Your task to perform on an android device: Open settings Image 0: 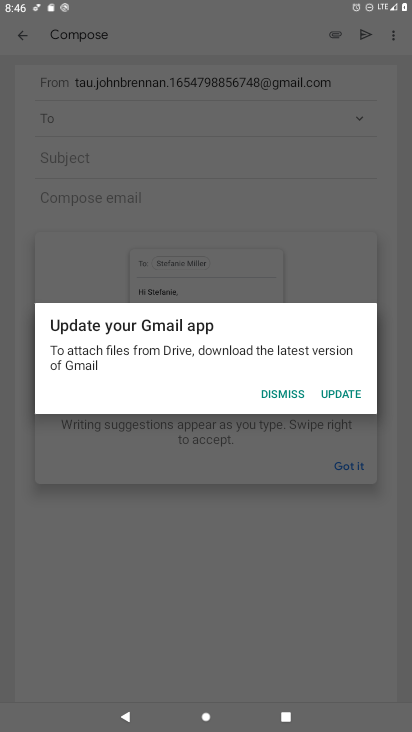
Step 0: press home button
Your task to perform on an android device: Open settings Image 1: 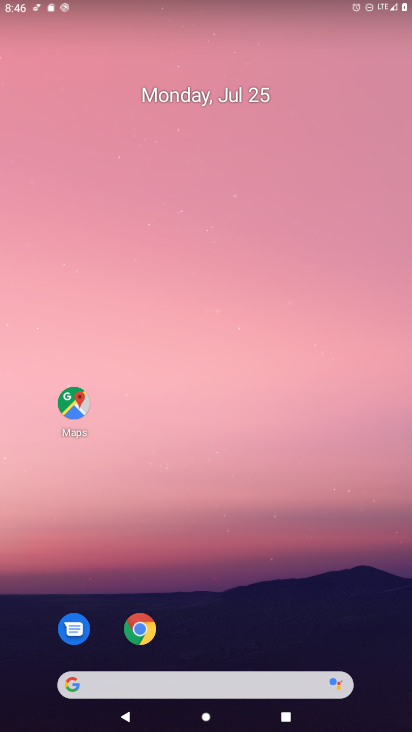
Step 1: drag from (199, 682) to (214, 116)
Your task to perform on an android device: Open settings Image 2: 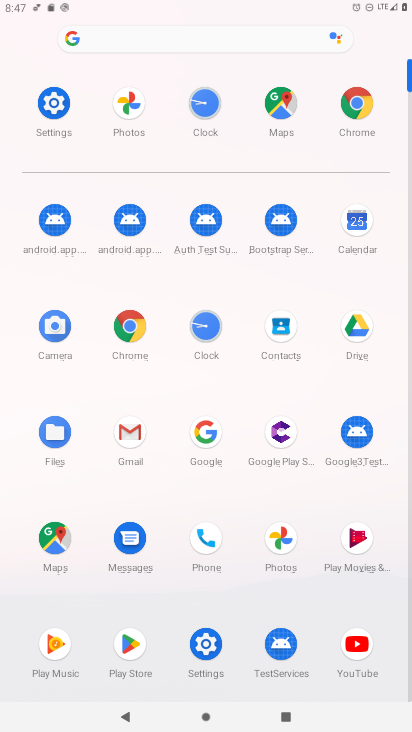
Step 2: click (205, 644)
Your task to perform on an android device: Open settings Image 3: 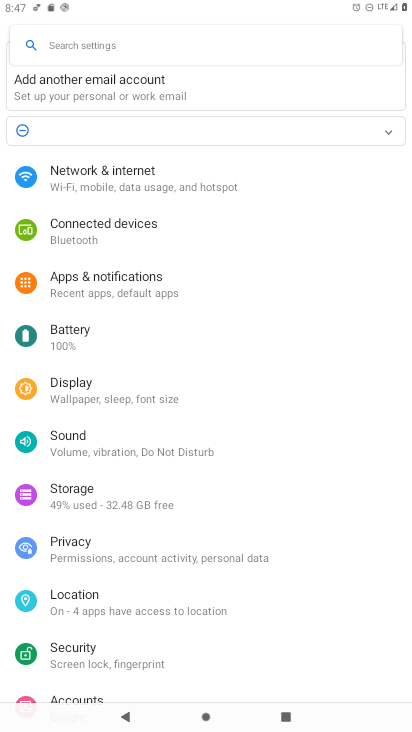
Step 3: task complete